Your task to perform on an android device: turn off notifications settings in the gmail app Image 0: 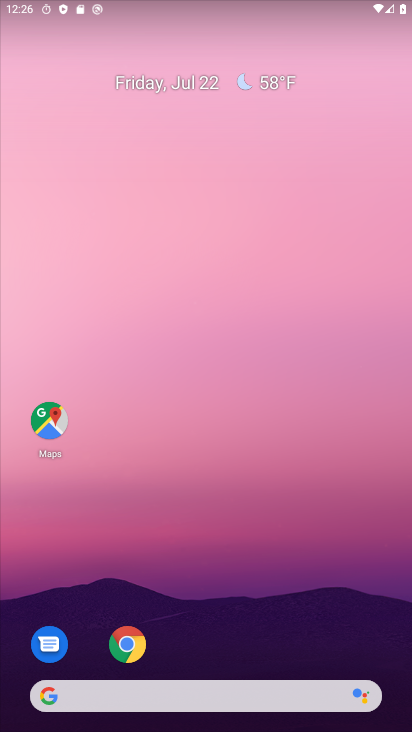
Step 0: drag from (178, 462) to (213, 170)
Your task to perform on an android device: turn off notifications settings in the gmail app Image 1: 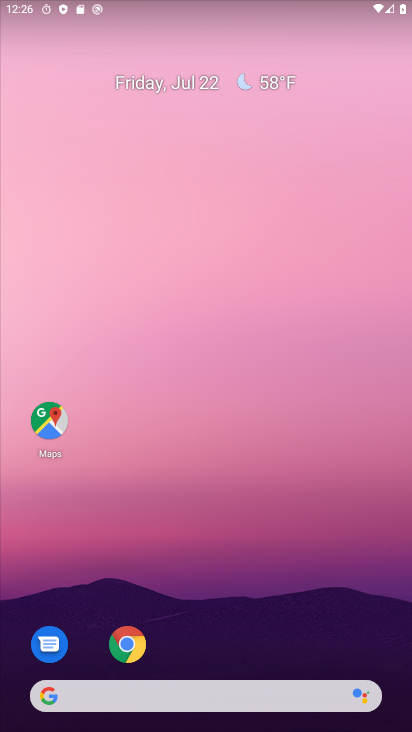
Step 1: drag from (198, 585) to (181, 306)
Your task to perform on an android device: turn off notifications settings in the gmail app Image 2: 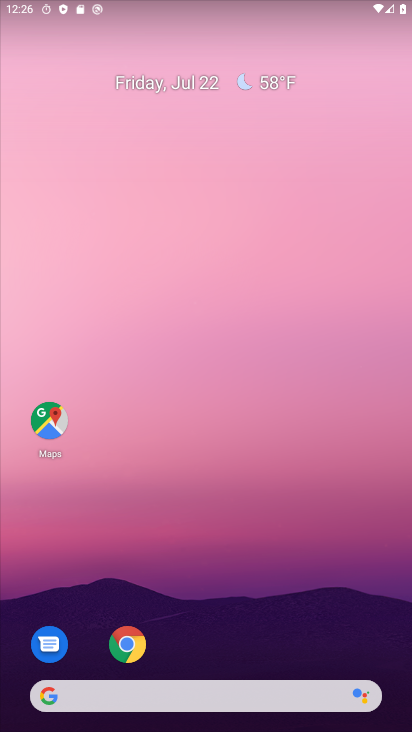
Step 2: drag from (169, 663) to (278, 47)
Your task to perform on an android device: turn off notifications settings in the gmail app Image 3: 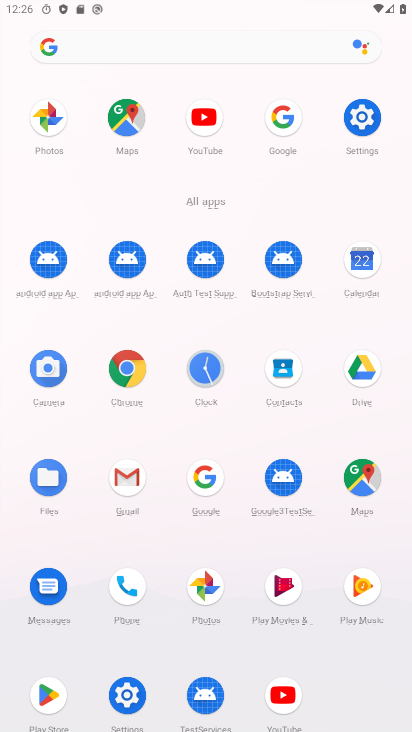
Step 3: click (120, 480)
Your task to perform on an android device: turn off notifications settings in the gmail app Image 4: 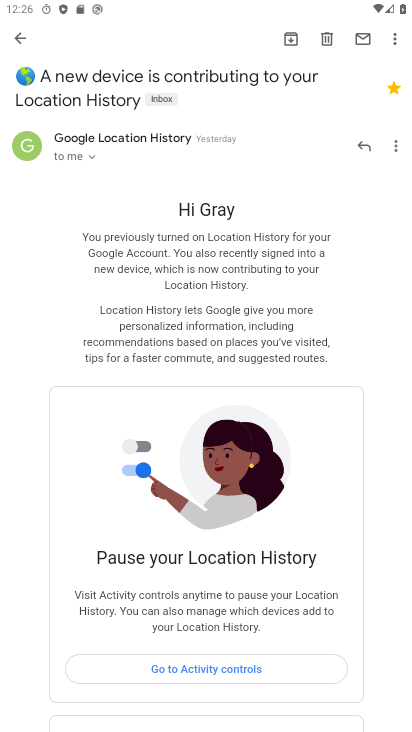
Step 4: drag from (303, 186) to (253, 694)
Your task to perform on an android device: turn off notifications settings in the gmail app Image 5: 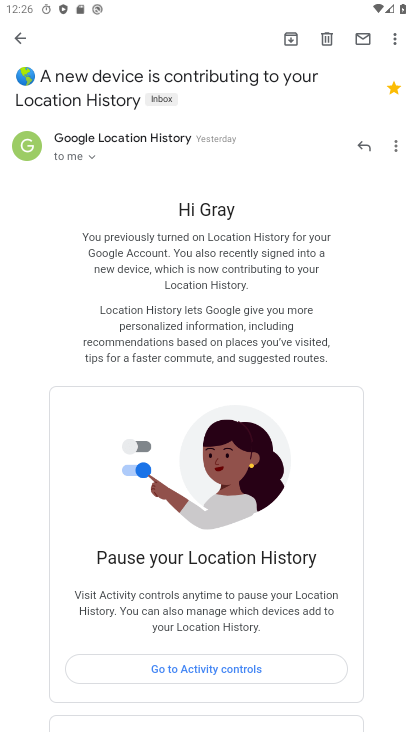
Step 5: click (14, 33)
Your task to perform on an android device: turn off notifications settings in the gmail app Image 6: 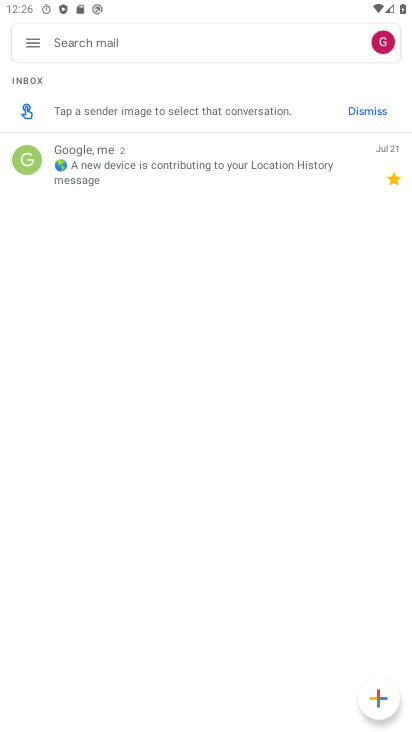
Step 6: click (30, 38)
Your task to perform on an android device: turn off notifications settings in the gmail app Image 7: 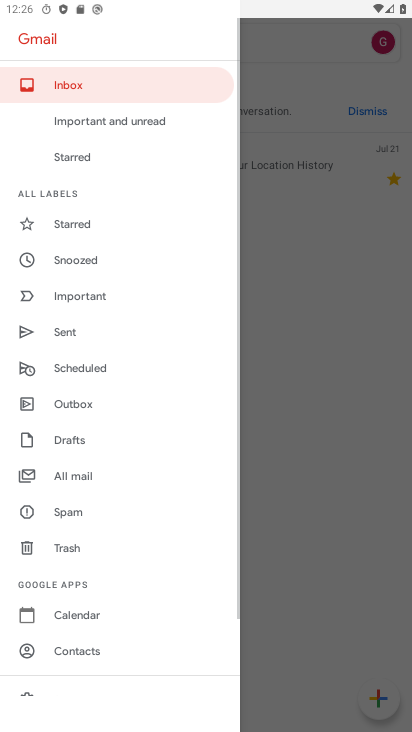
Step 7: drag from (67, 622) to (122, 112)
Your task to perform on an android device: turn off notifications settings in the gmail app Image 8: 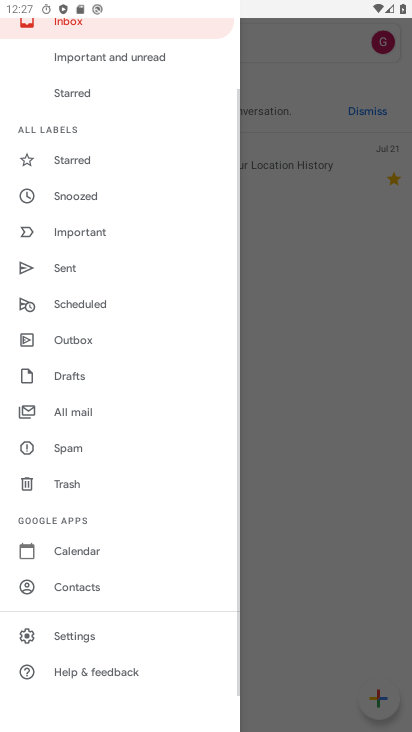
Step 8: click (64, 628)
Your task to perform on an android device: turn off notifications settings in the gmail app Image 9: 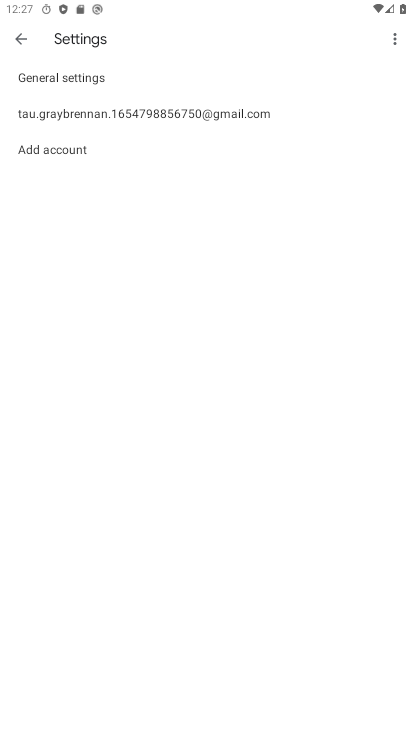
Step 9: click (110, 108)
Your task to perform on an android device: turn off notifications settings in the gmail app Image 10: 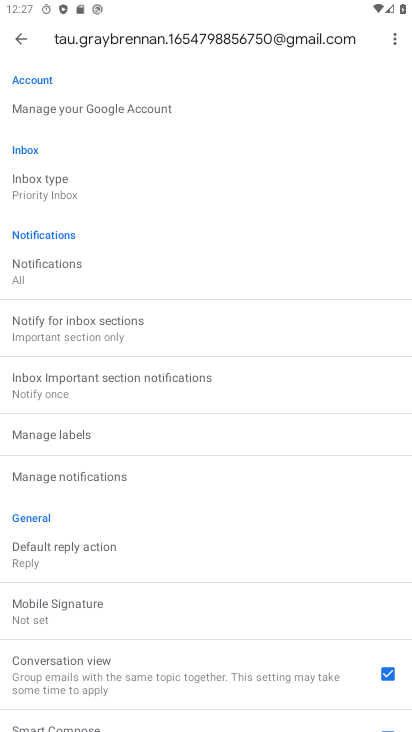
Step 10: drag from (198, 660) to (239, 318)
Your task to perform on an android device: turn off notifications settings in the gmail app Image 11: 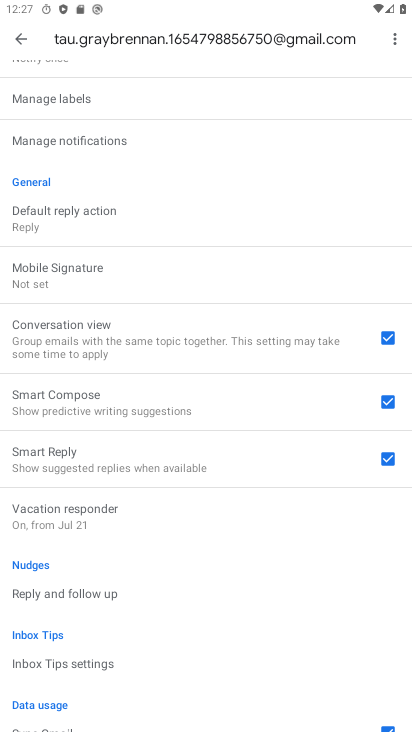
Step 11: click (109, 147)
Your task to perform on an android device: turn off notifications settings in the gmail app Image 12: 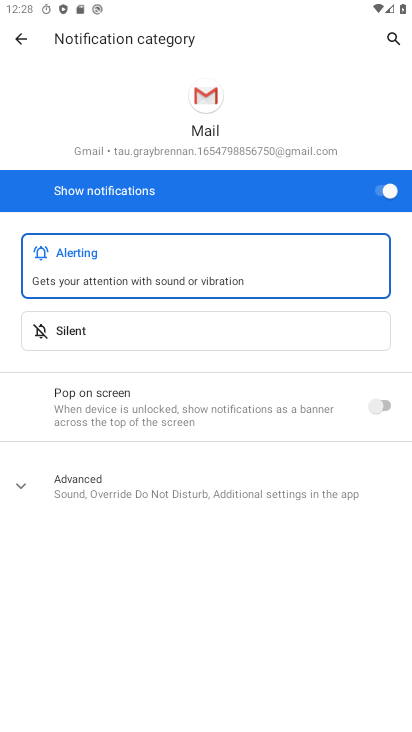
Step 12: click (394, 184)
Your task to perform on an android device: turn off notifications settings in the gmail app Image 13: 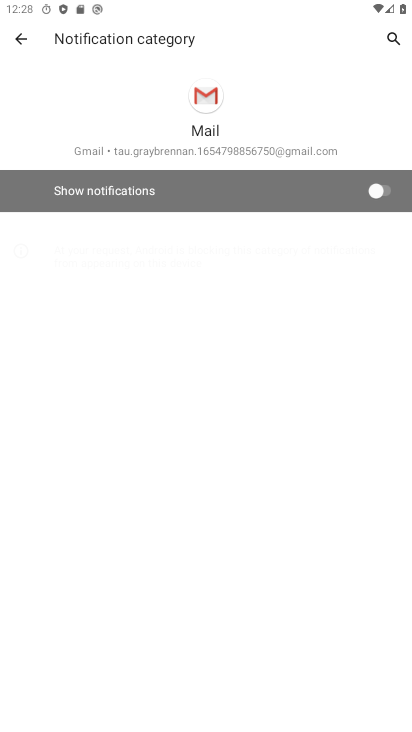
Step 13: task complete